Your task to perform on an android device: open app "Google Maps" (install if not already installed) Image 0: 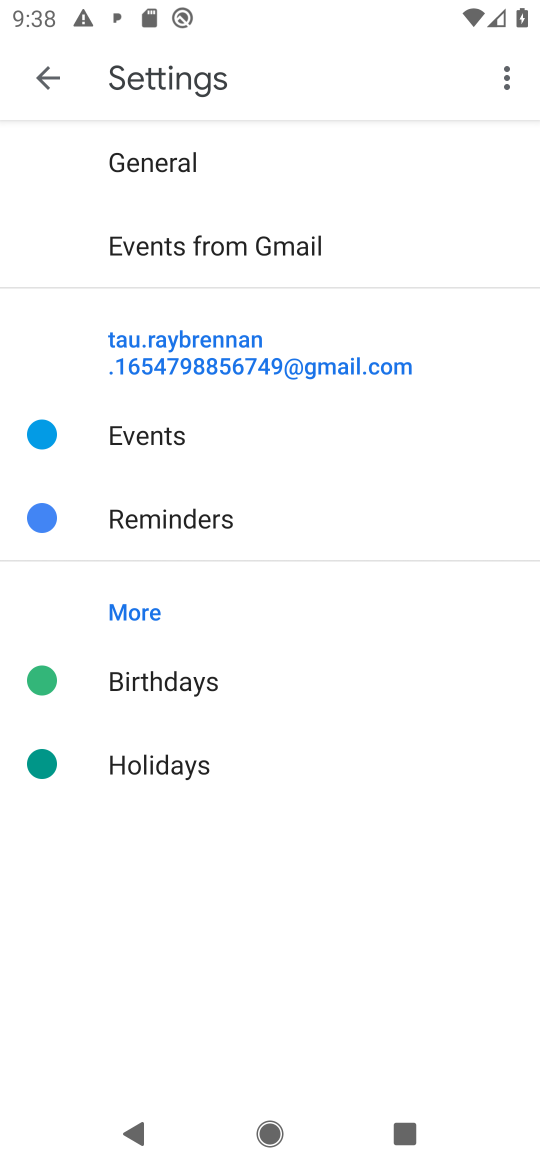
Step 0: press home button
Your task to perform on an android device: open app "Google Maps" (install if not already installed) Image 1: 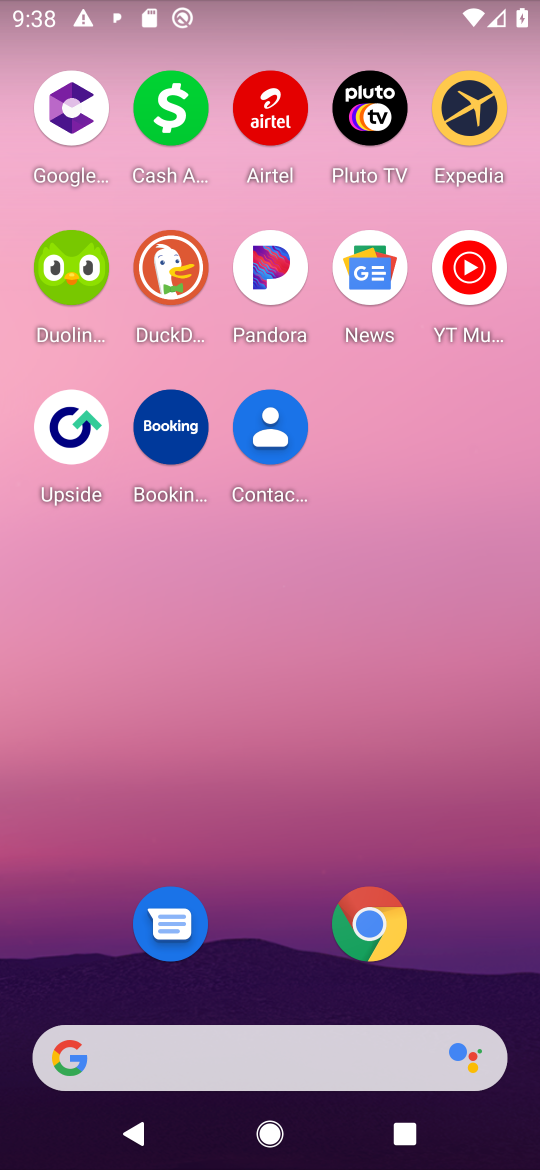
Step 1: drag from (457, 971) to (456, 126)
Your task to perform on an android device: open app "Google Maps" (install if not already installed) Image 2: 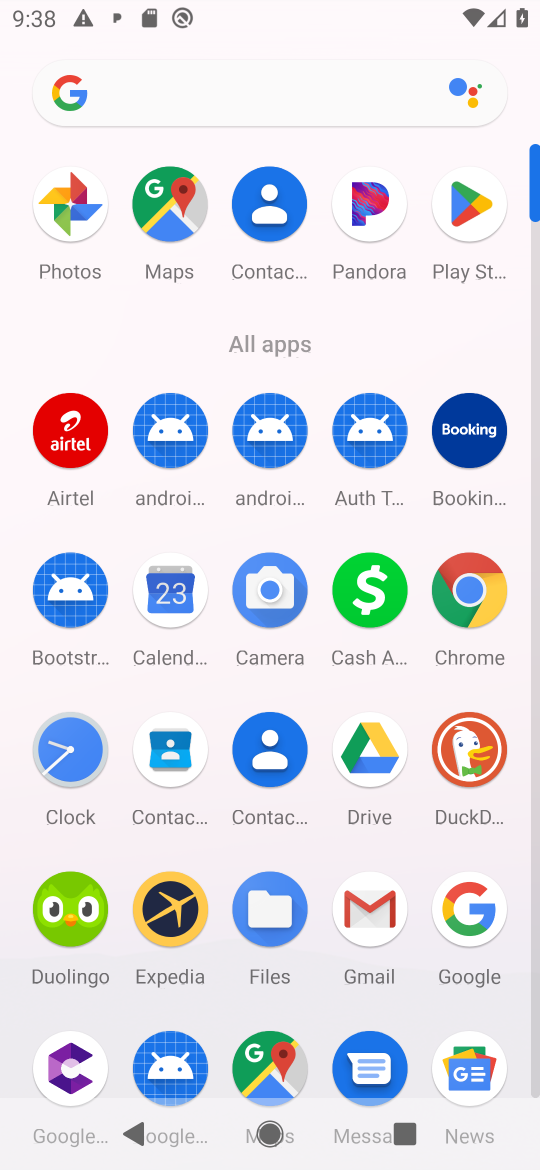
Step 2: click (475, 208)
Your task to perform on an android device: open app "Google Maps" (install if not already installed) Image 3: 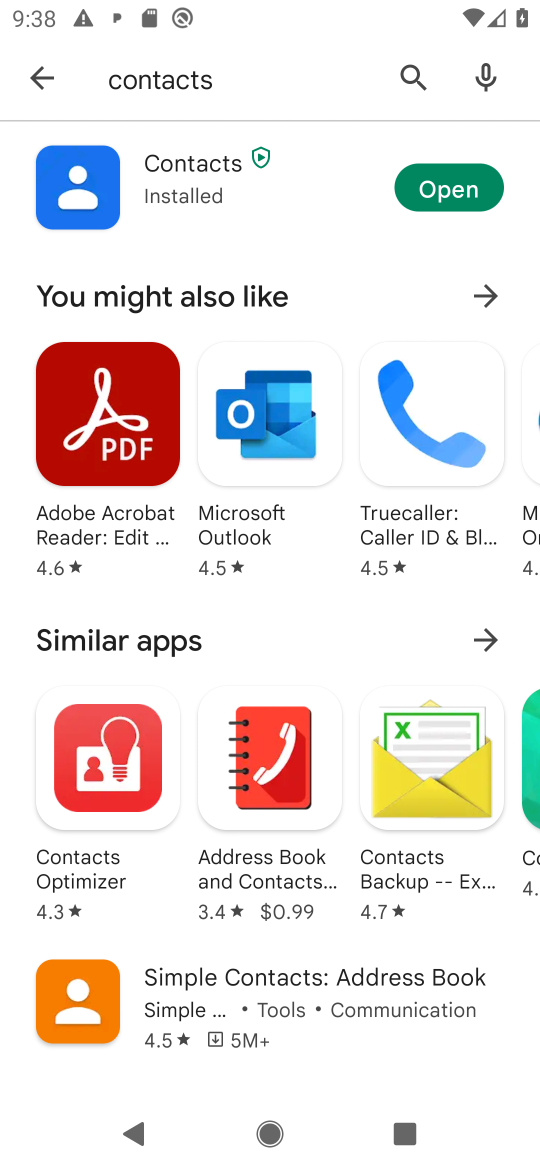
Step 3: press back button
Your task to perform on an android device: open app "Google Maps" (install if not already installed) Image 4: 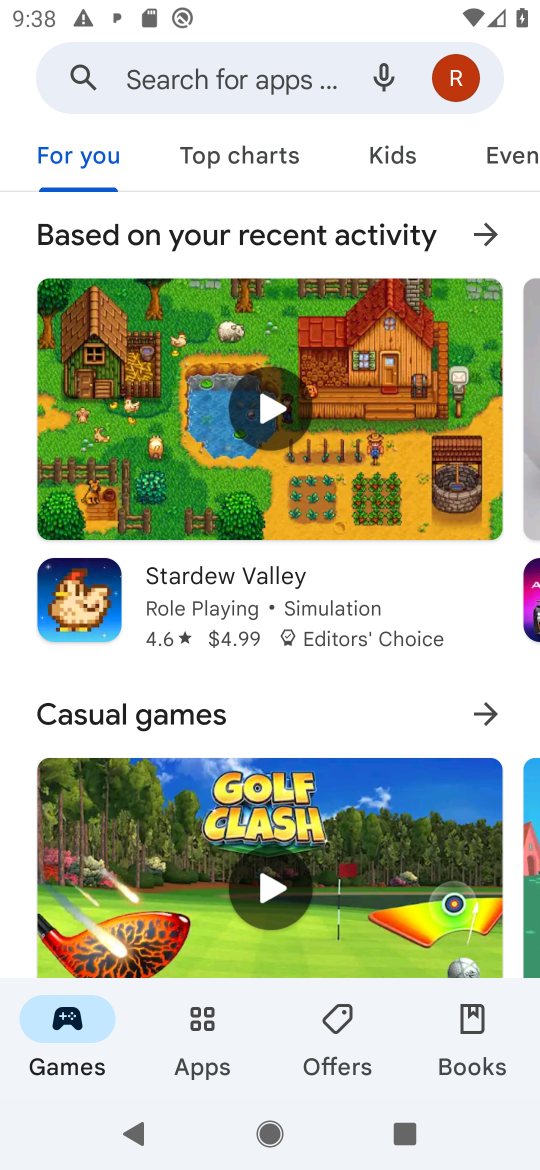
Step 4: click (264, 76)
Your task to perform on an android device: open app "Google Maps" (install if not already installed) Image 5: 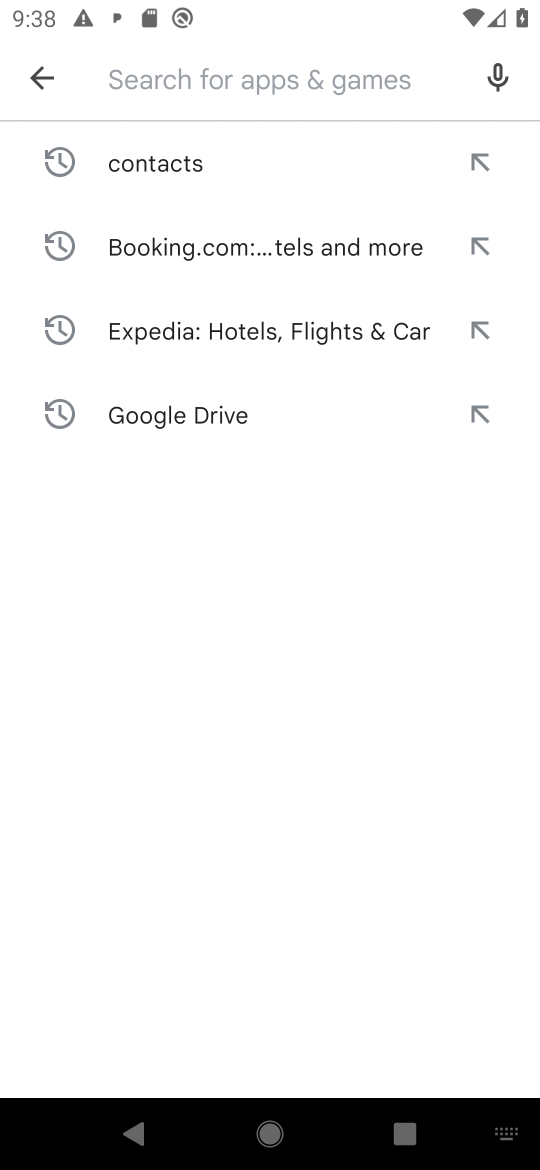
Step 5: type "Google Maps"
Your task to perform on an android device: open app "Google Maps" (install if not already installed) Image 6: 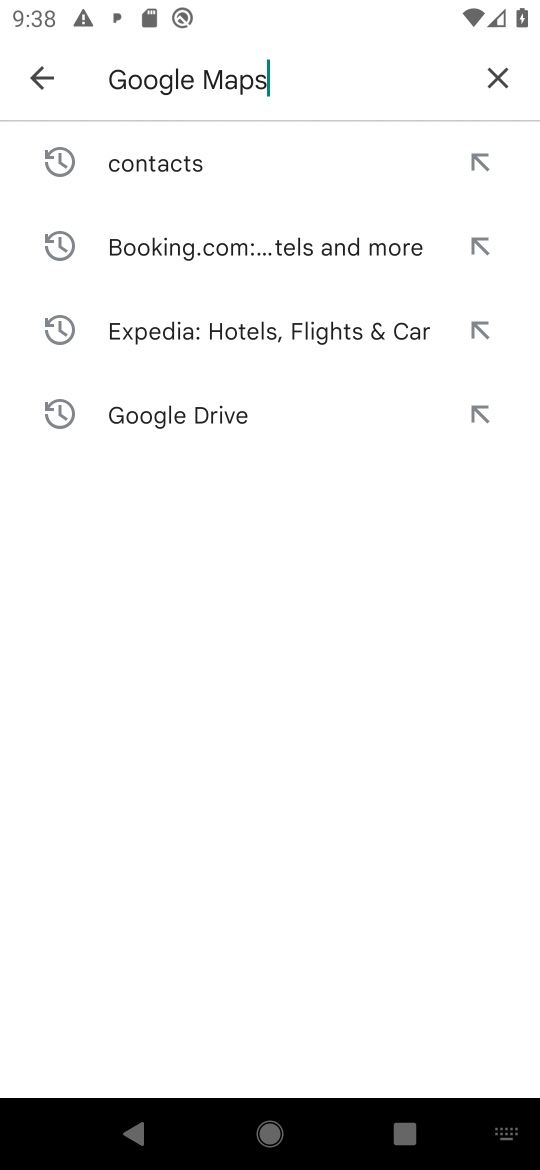
Step 6: press enter
Your task to perform on an android device: open app "Google Maps" (install if not already installed) Image 7: 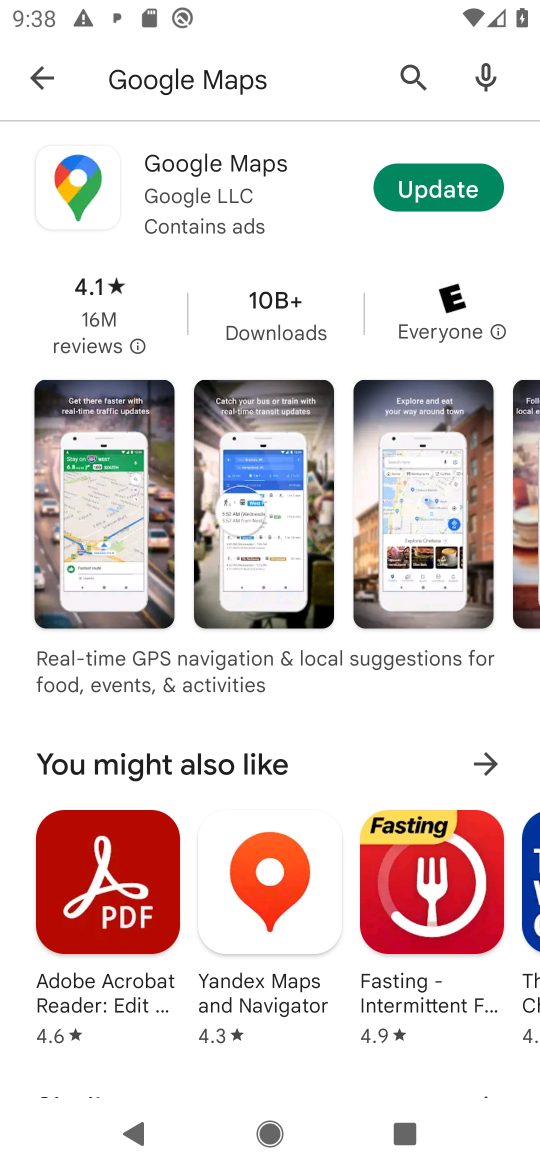
Step 7: click (443, 183)
Your task to perform on an android device: open app "Google Maps" (install if not already installed) Image 8: 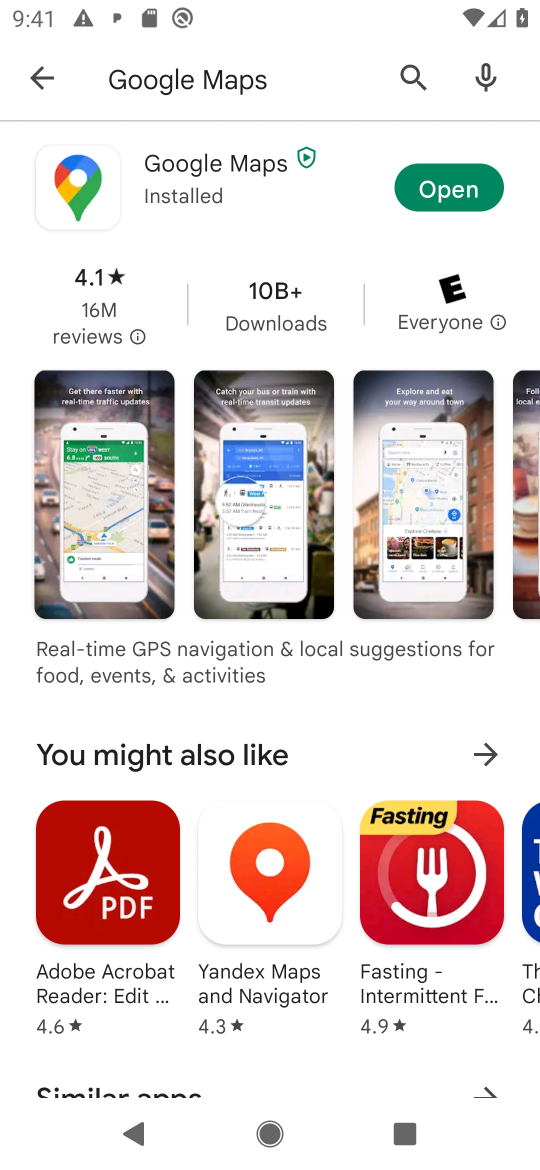
Step 8: click (436, 184)
Your task to perform on an android device: open app "Google Maps" (install if not already installed) Image 9: 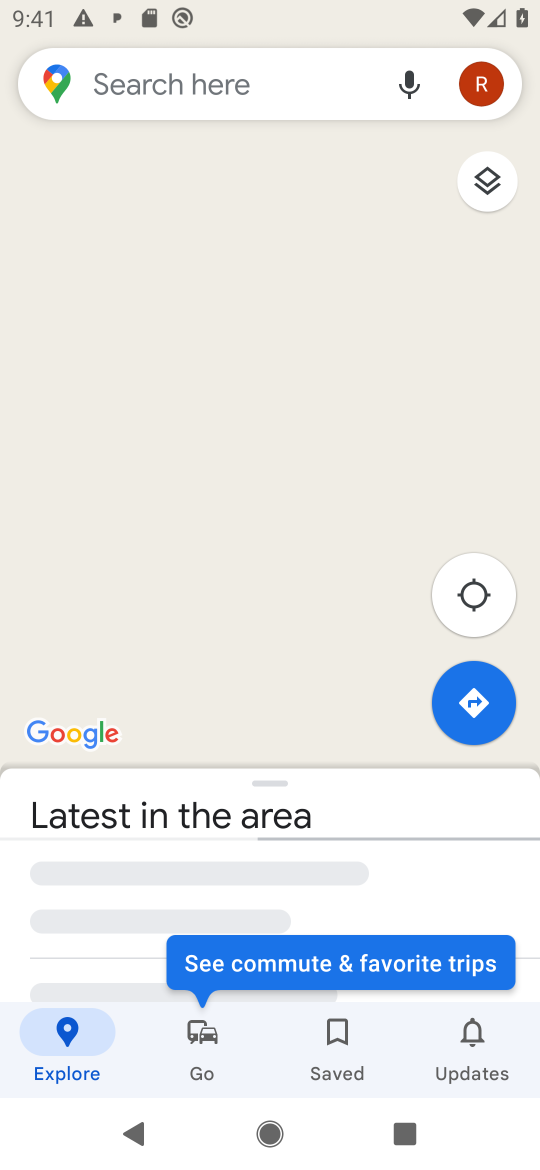
Step 9: task complete